Your task to perform on an android device: Open battery settings Image 0: 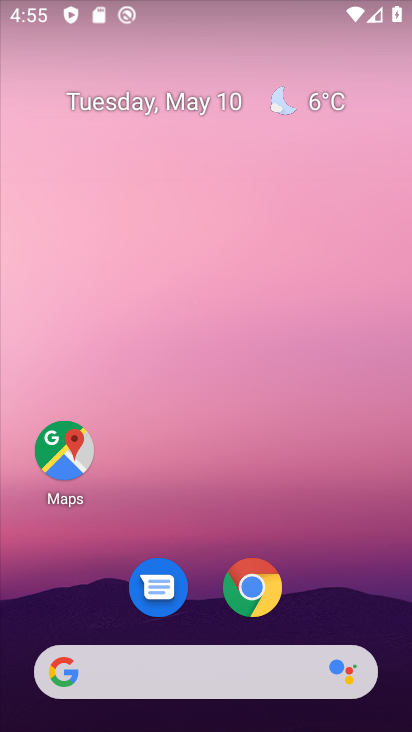
Step 0: drag from (189, 635) to (270, 212)
Your task to perform on an android device: Open battery settings Image 1: 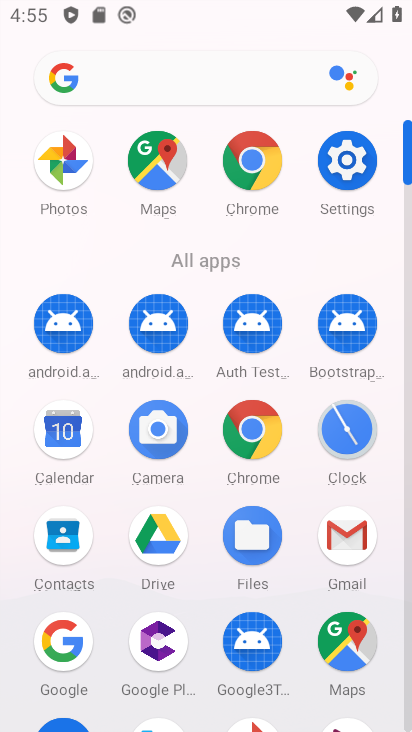
Step 1: click (343, 147)
Your task to perform on an android device: Open battery settings Image 2: 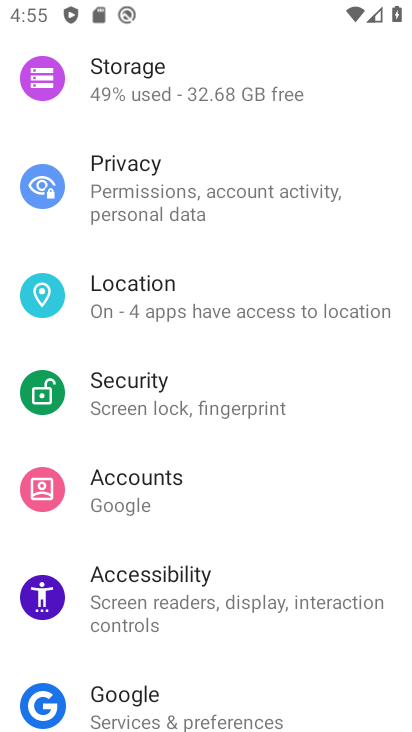
Step 2: drag from (230, 174) to (222, 645)
Your task to perform on an android device: Open battery settings Image 3: 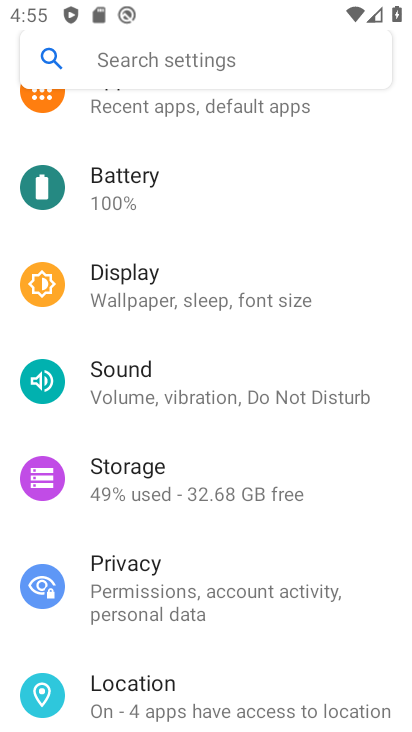
Step 3: drag from (219, 362) to (217, 548)
Your task to perform on an android device: Open battery settings Image 4: 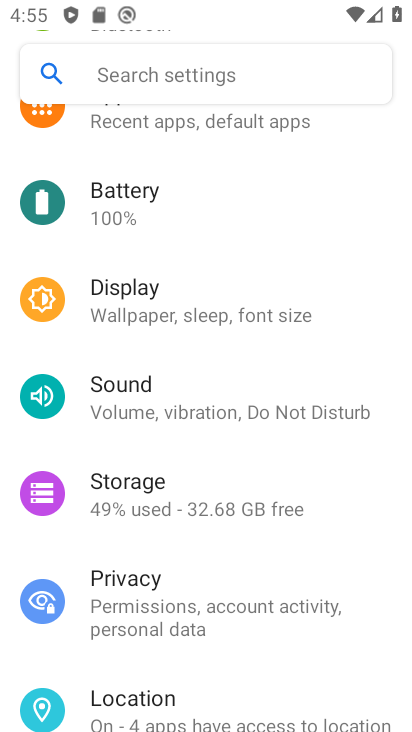
Step 4: click (179, 207)
Your task to perform on an android device: Open battery settings Image 5: 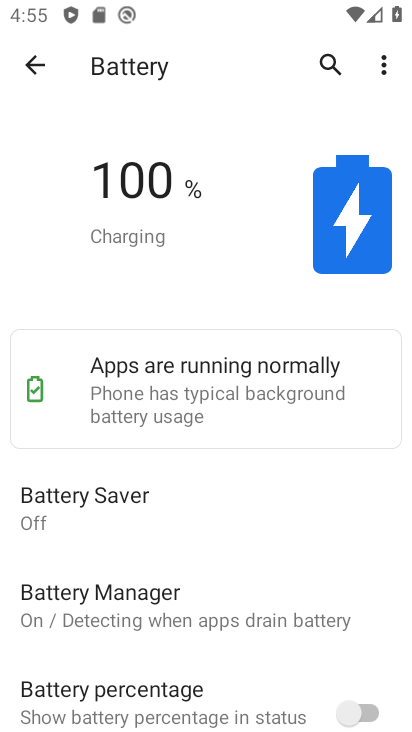
Step 5: task complete